Your task to perform on an android device: Open Google Maps Image 0: 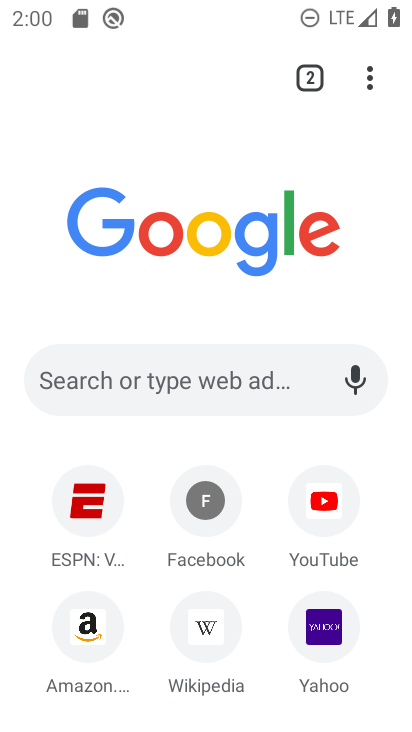
Step 0: press home button
Your task to perform on an android device: Open Google Maps Image 1: 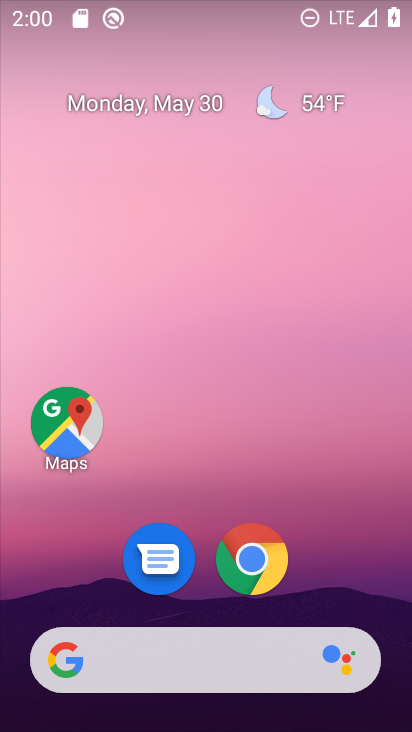
Step 1: click (73, 432)
Your task to perform on an android device: Open Google Maps Image 2: 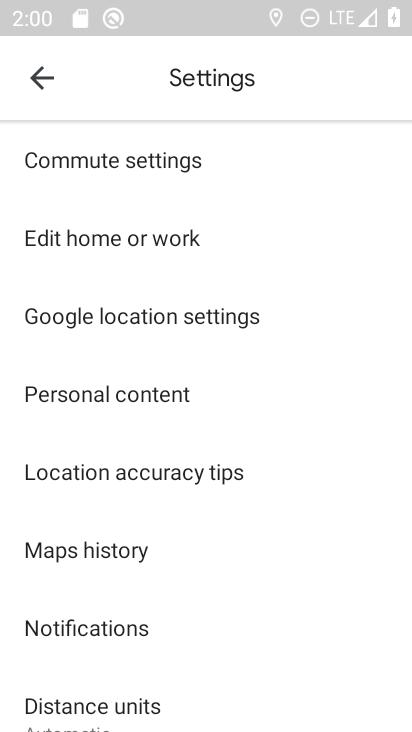
Step 2: click (41, 97)
Your task to perform on an android device: Open Google Maps Image 3: 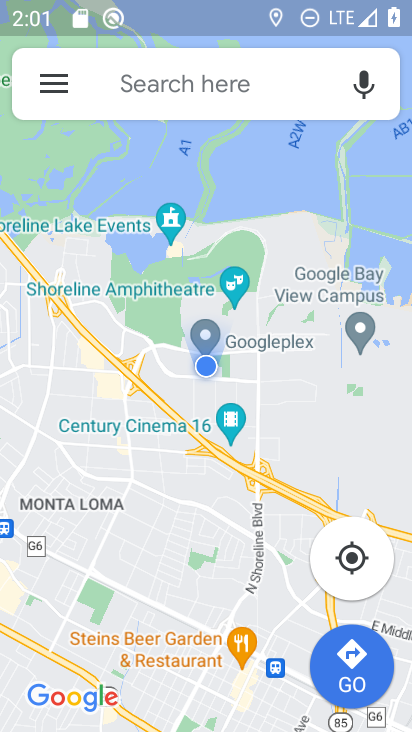
Step 3: click (46, 90)
Your task to perform on an android device: Open Google Maps Image 4: 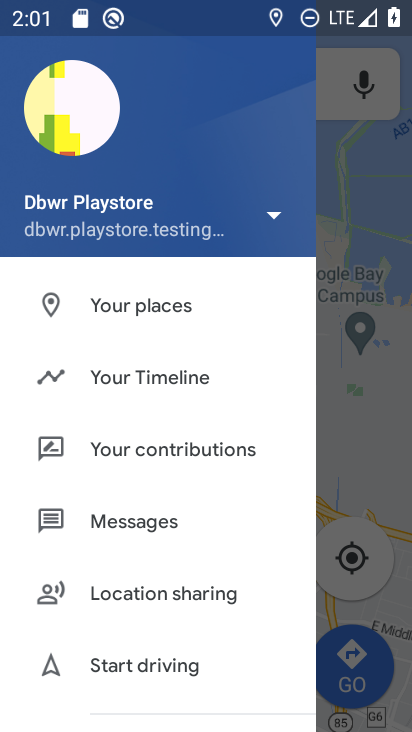
Step 4: task complete